Your task to perform on an android device: check the backup settings in the google photos Image 0: 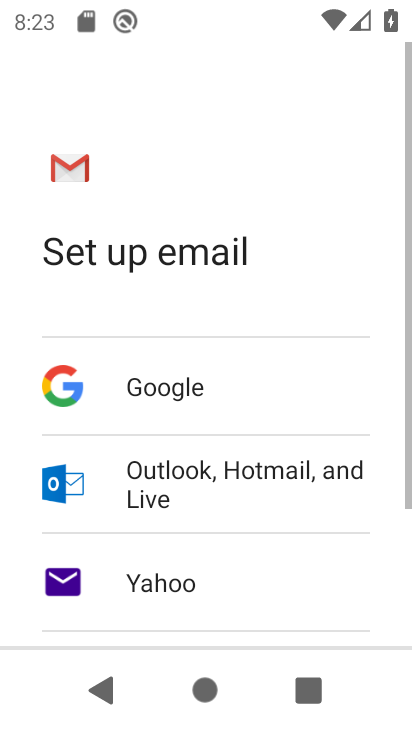
Step 0: press home button
Your task to perform on an android device: check the backup settings in the google photos Image 1: 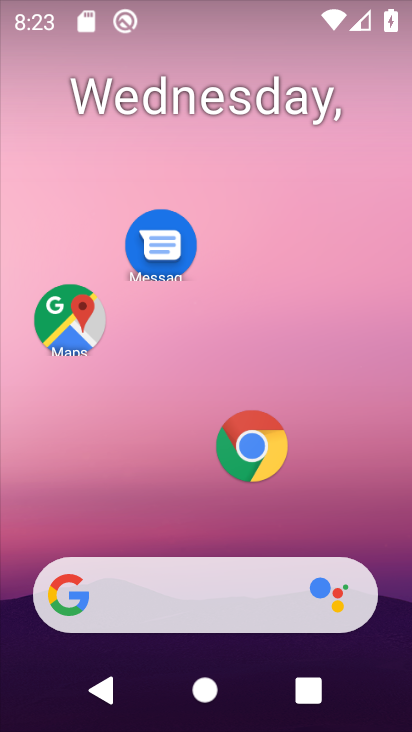
Step 1: drag from (196, 514) to (198, 239)
Your task to perform on an android device: check the backup settings in the google photos Image 2: 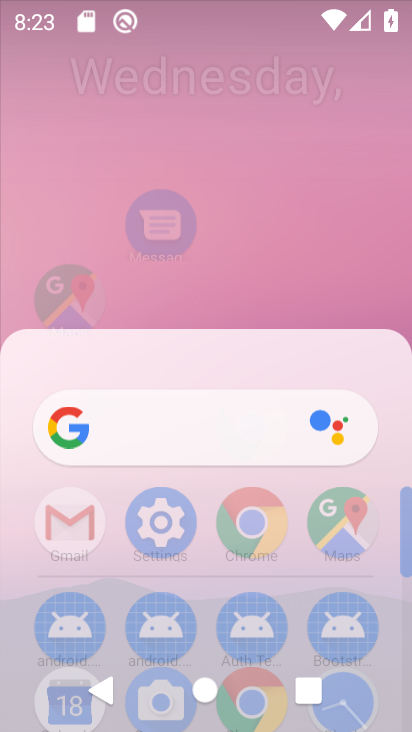
Step 2: click (211, 2)
Your task to perform on an android device: check the backup settings in the google photos Image 3: 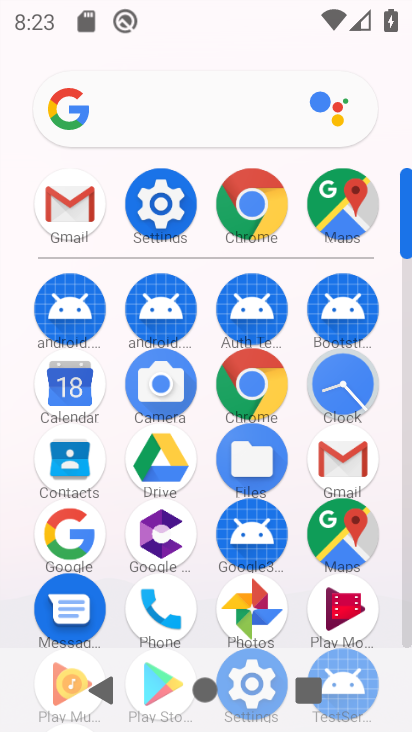
Step 3: click (253, 604)
Your task to perform on an android device: check the backup settings in the google photos Image 4: 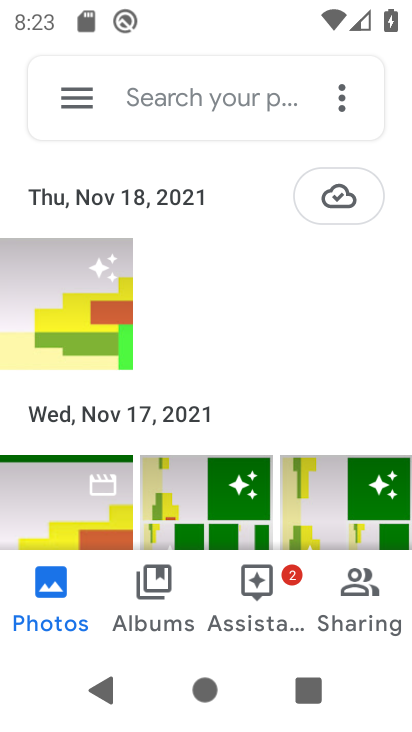
Step 4: click (74, 100)
Your task to perform on an android device: check the backup settings in the google photos Image 5: 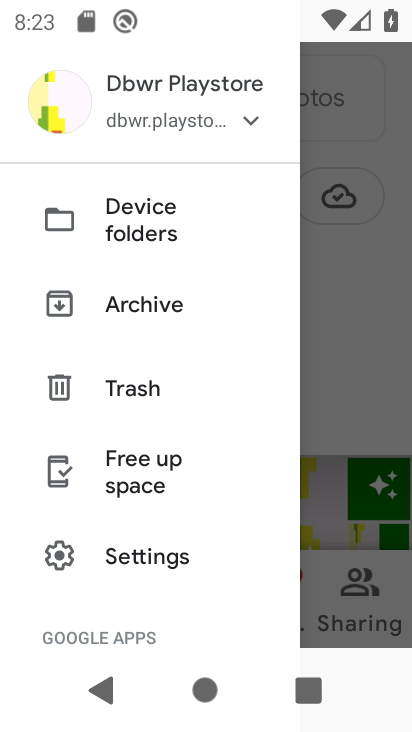
Step 5: click (192, 560)
Your task to perform on an android device: check the backup settings in the google photos Image 6: 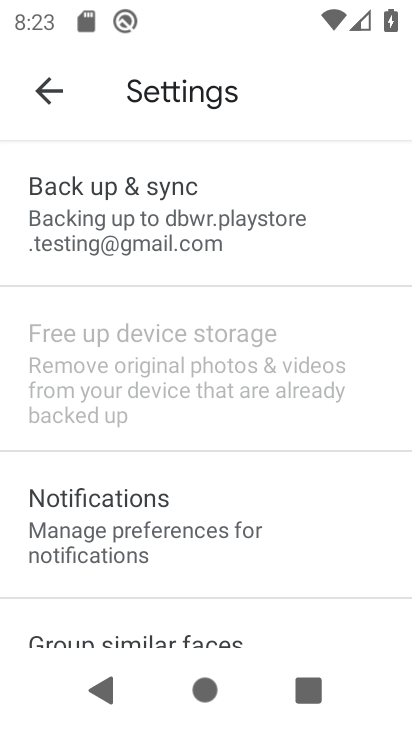
Step 6: click (136, 236)
Your task to perform on an android device: check the backup settings in the google photos Image 7: 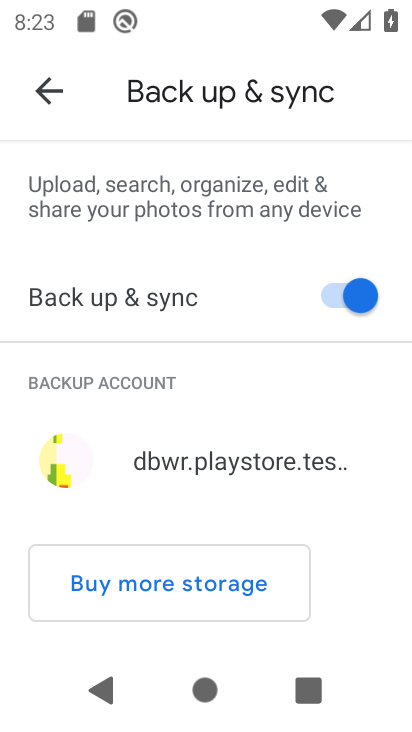
Step 7: task complete